Your task to perform on an android device: Open the web browser Image 0: 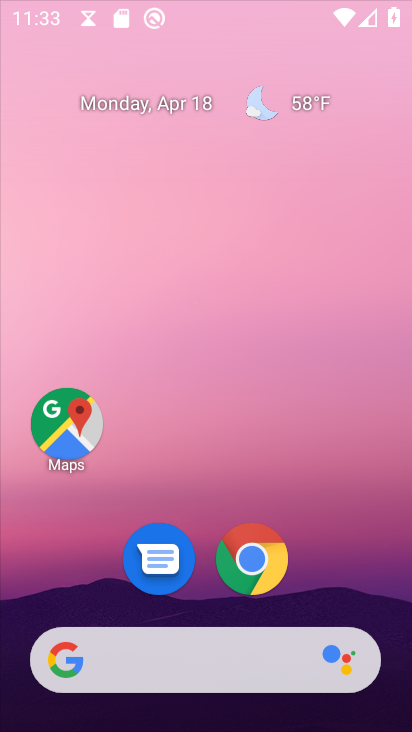
Step 0: drag from (337, 560) to (185, 145)
Your task to perform on an android device: Open the web browser Image 1: 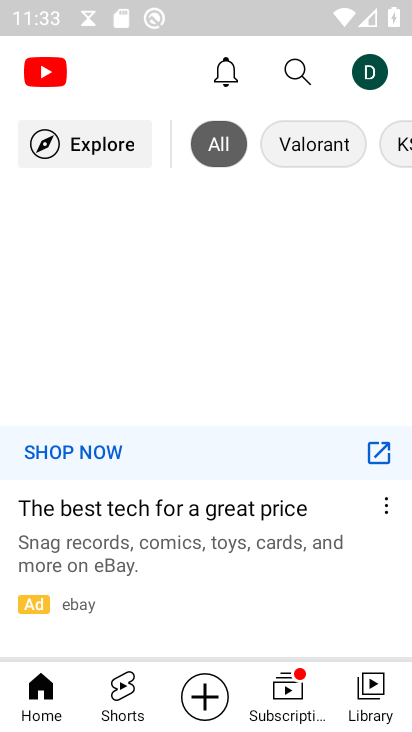
Step 1: press home button
Your task to perform on an android device: Open the web browser Image 2: 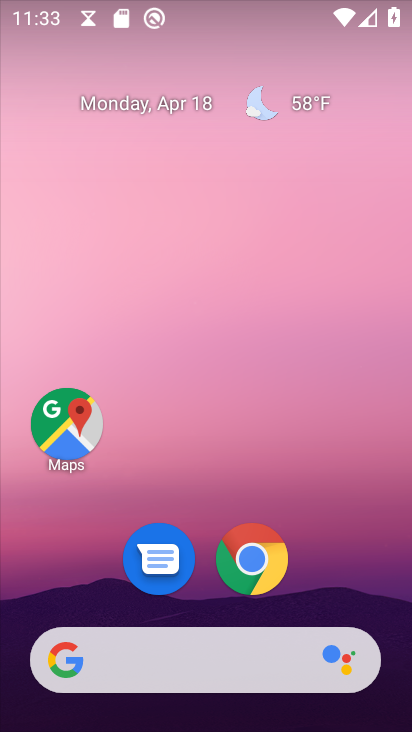
Step 2: click (247, 545)
Your task to perform on an android device: Open the web browser Image 3: 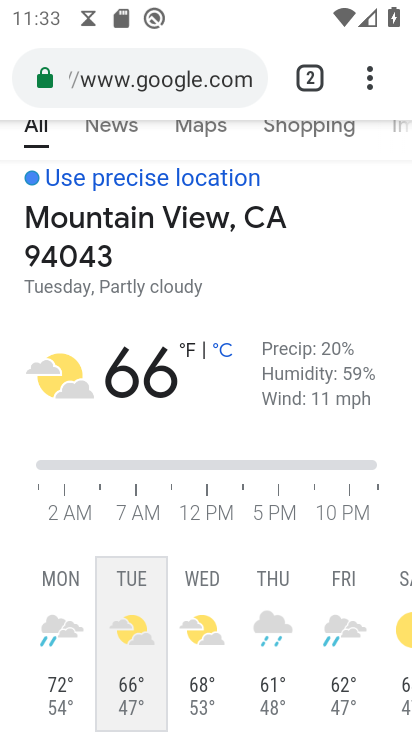
Step 3: task complete